Your task to perform on an android device: check the backup settings in the google photos Image 0: 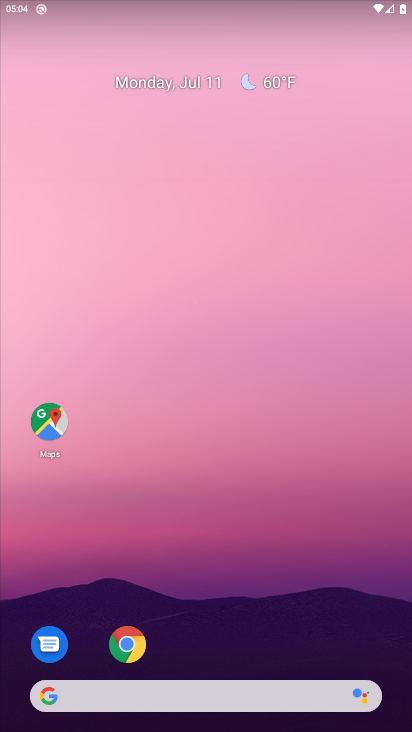
Step 0: click (169, 383)
Your task to perform on an android device: check the backup settings in the google photos Image 1: 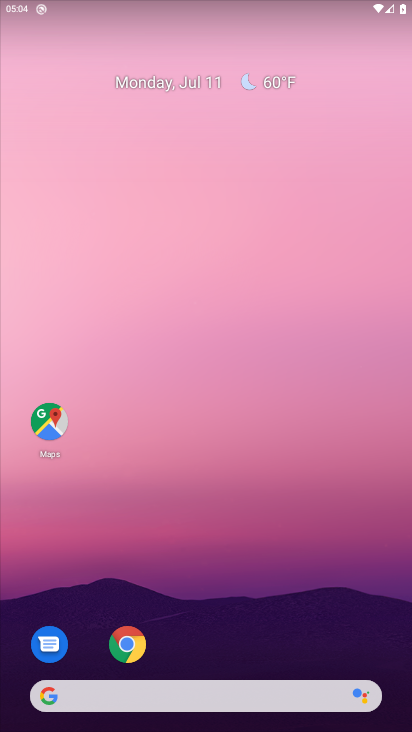
Step 1: drag from (266, 562) to (257, 211)
Your task to perform on an android device: check the backup settings in the google photos Image 2: 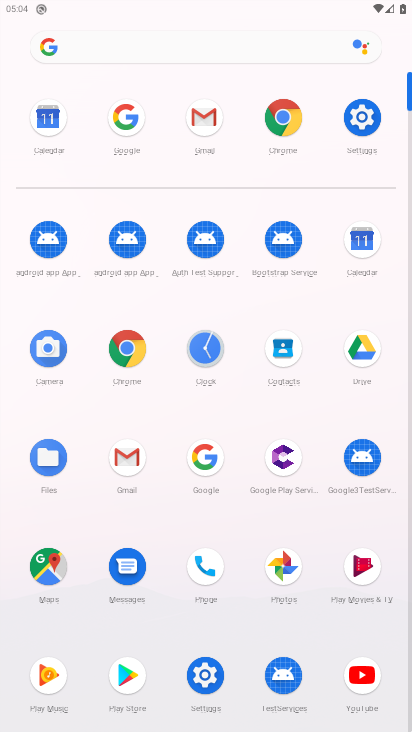
Step 2: click (291, 571)
Your task to perform on an android device: check the backup settings in the google photos Image 3: 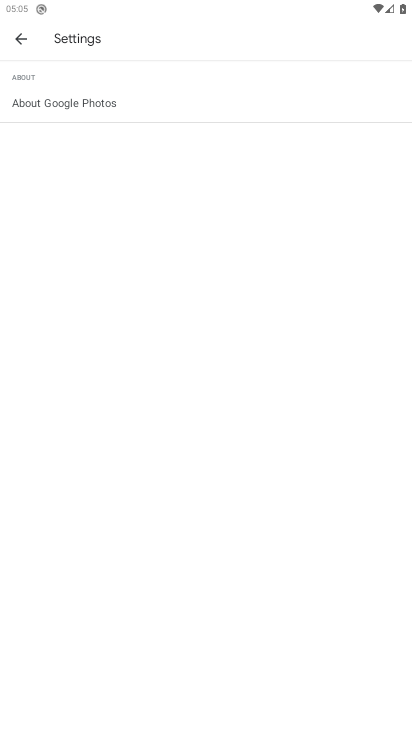
Step 3: click (14, 39)
Your task to perform on an android device: check the backup settings in the google photos Image 4: 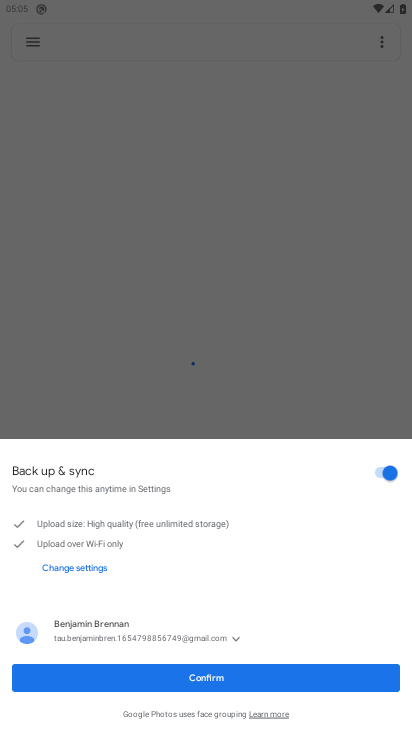
Step 4: click (205, 677)
Your task to perform on an android device: check the backup settings in the google photos Image 5: 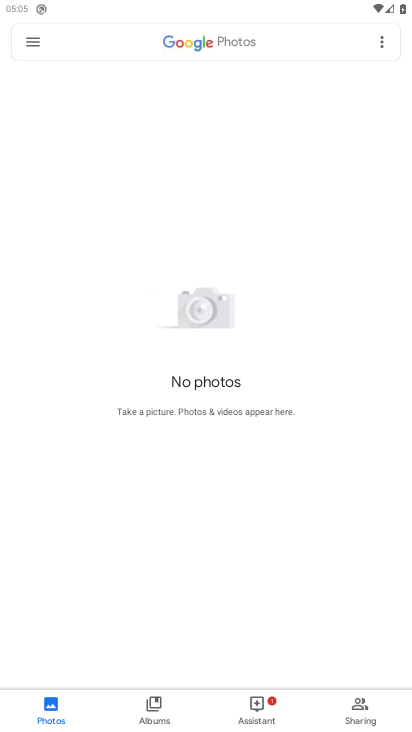
Step 5: click (36, 42)
Your task to perform on an android device: check the backup settings in the google photos Image 6: 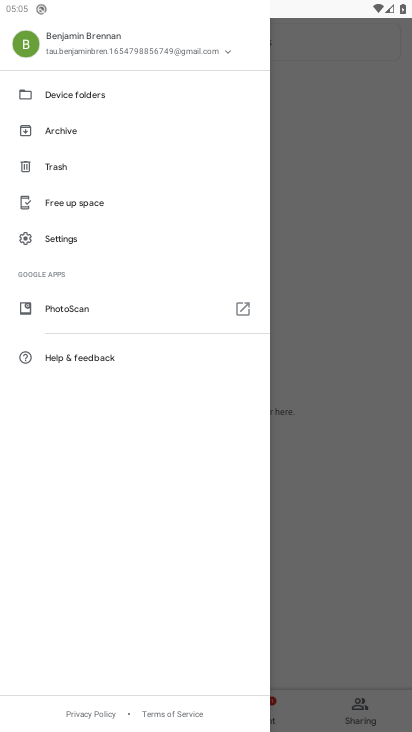
Step 6: click (60, 238)
Your task to perform on an android device: check the backup settings in the google photos Image 7: 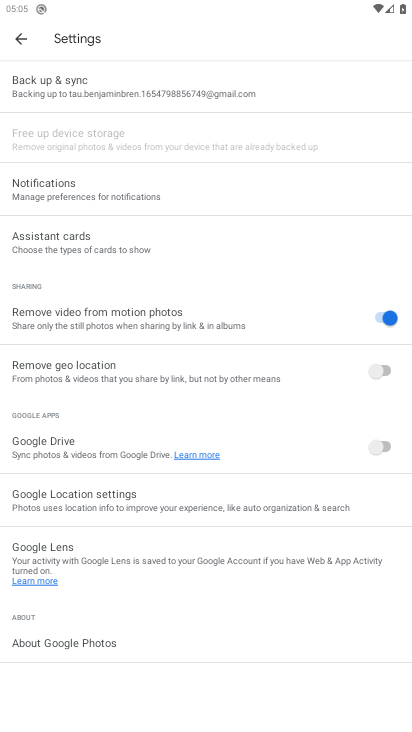
Step 7: click (107, 89)
Your task to perform on an android device: check the backup settings in the google photos Image 8: 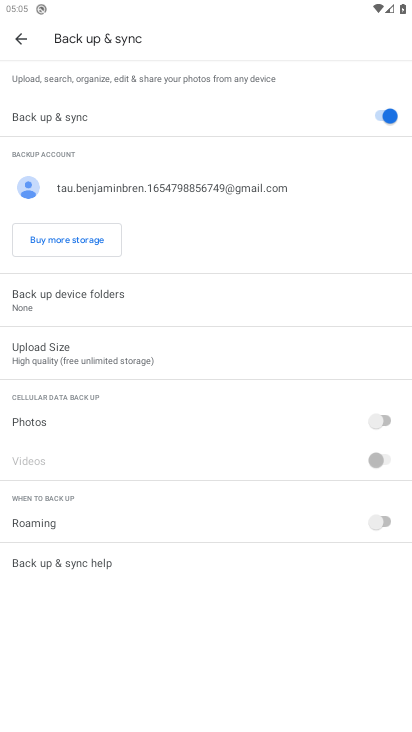
Step 8: task complete